Your task to perform on an android device: check out phone information Image 0: 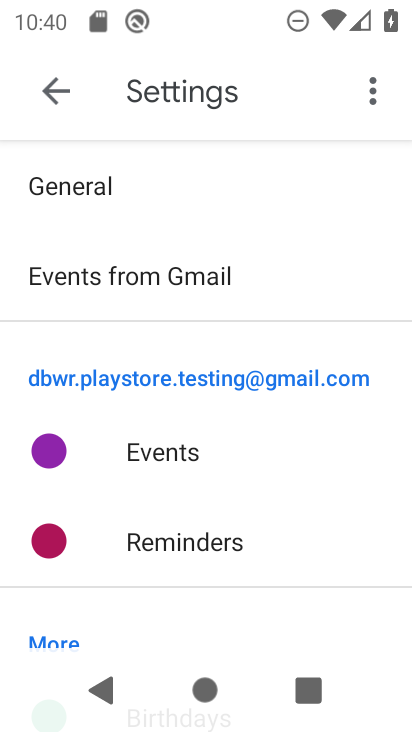
Step 0: drag from (203, 496) to (75, 343)
Your task to perform on an android device: check out phone information Image 1: 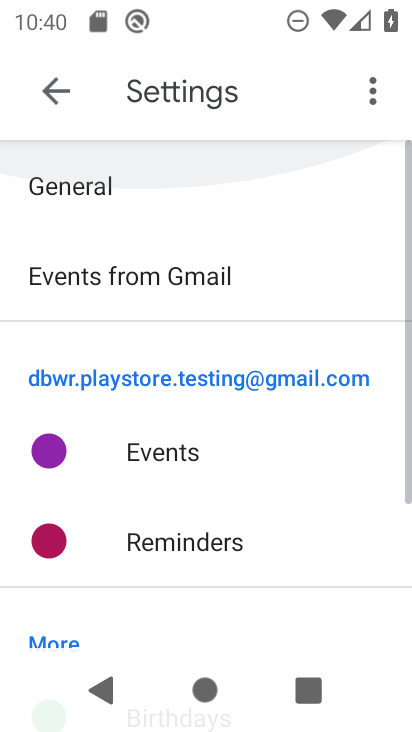
Step 1: drag from (246, 537) to (320, 86)
Your task to perform on an android device: check out phone information Image 2: 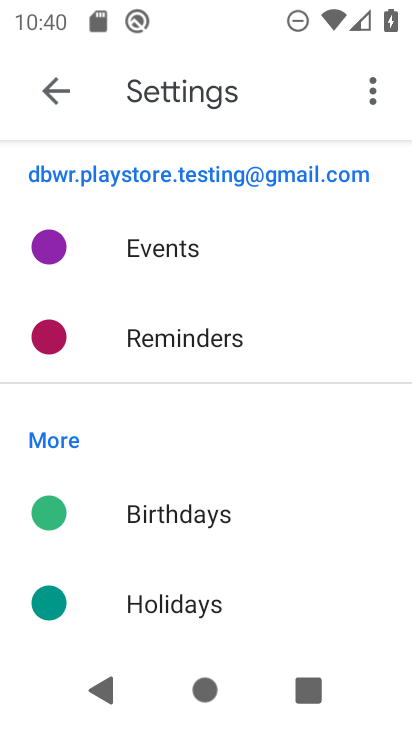
Step 2: press home button
Your task to perform on an android device: check out phone information Image 3: 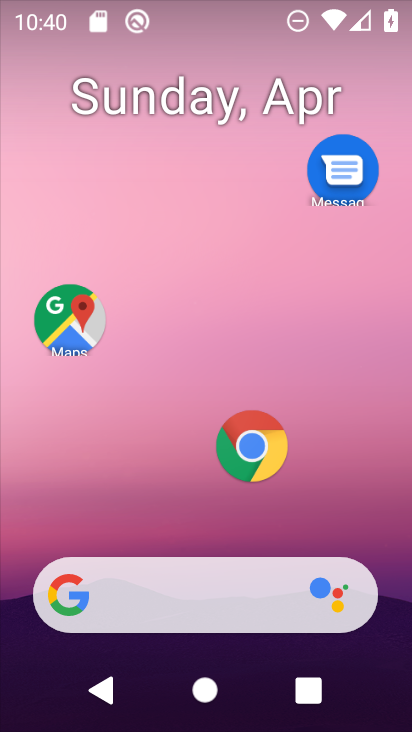
Step 3: drag from (205, 463) to (228, 119)
Your task to perform on an android device: check out phone information Image 4: 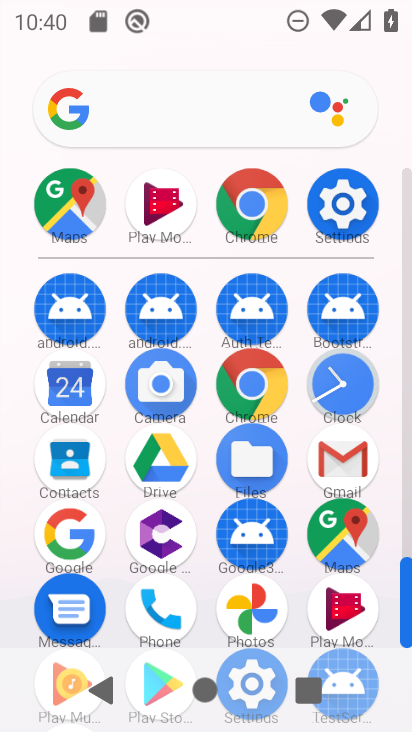
Step 4: click (351, 204)
Your task to perform on an android device: check out phone information Image 5: 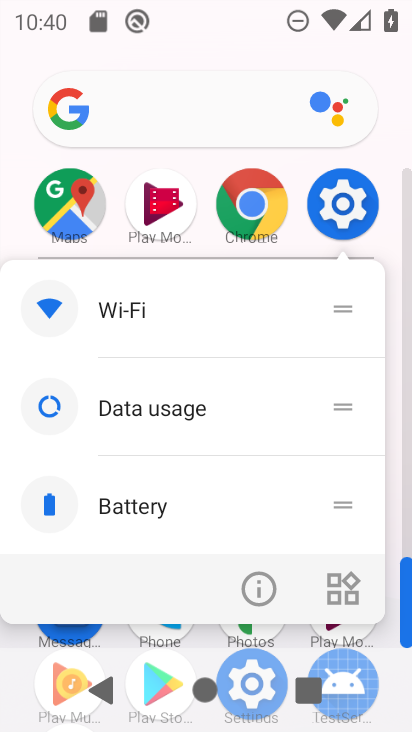
Step 5: click (254, 589)
Your task to perform on an android device: check out phone information Image 6: 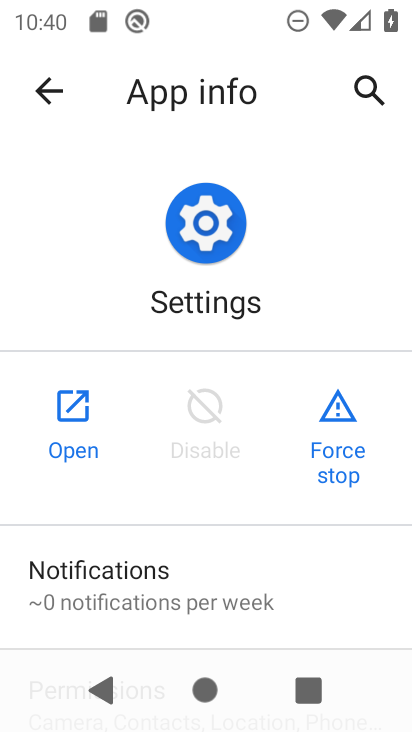
Step 6: click (54, 423)
Your task to perform on an android device: check out phone information Image 7: 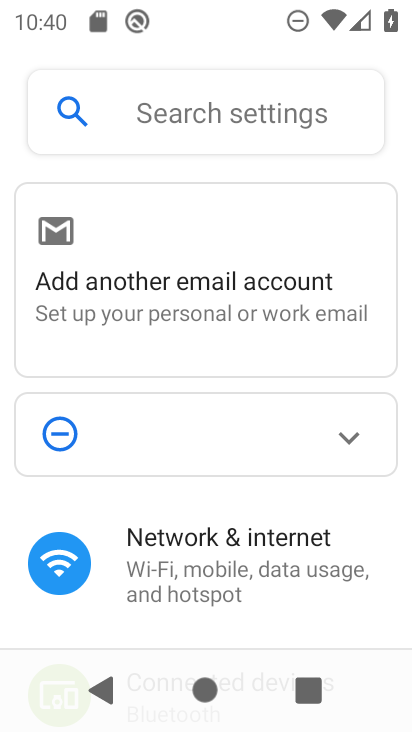
Step 7: drag from (215, 410) to (273, 133)
Your task to perform on an android device: check out phone information Image 8: 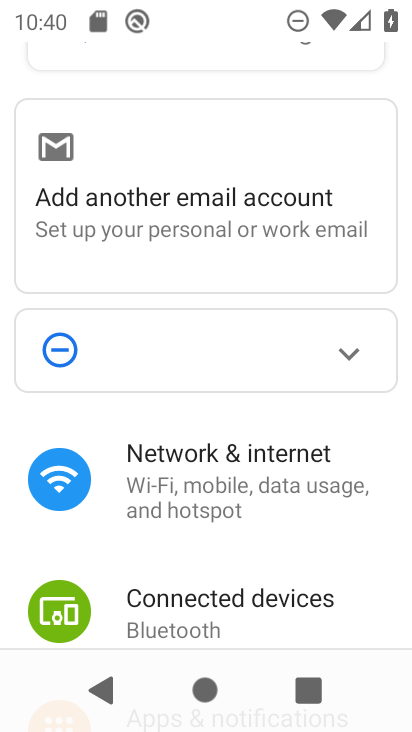
Step 8: drag from (193, 608) to (259, 89)
Your task to perform on an android device: check out phone information Image 9: 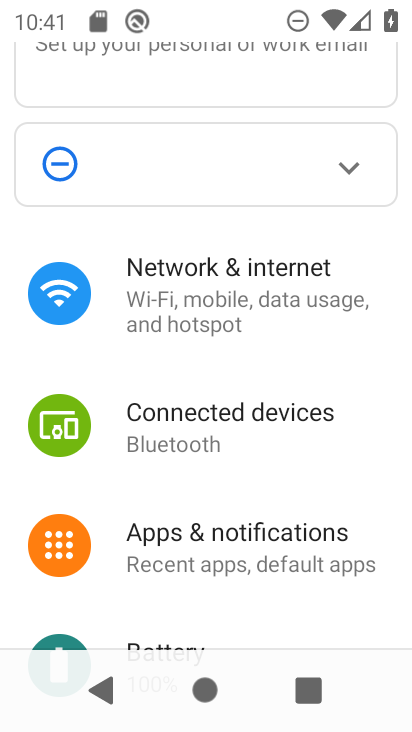
Step 9: drag from (178, 578) to (203, 170)
Your task to perform on an android device: check out phone information Image 10: 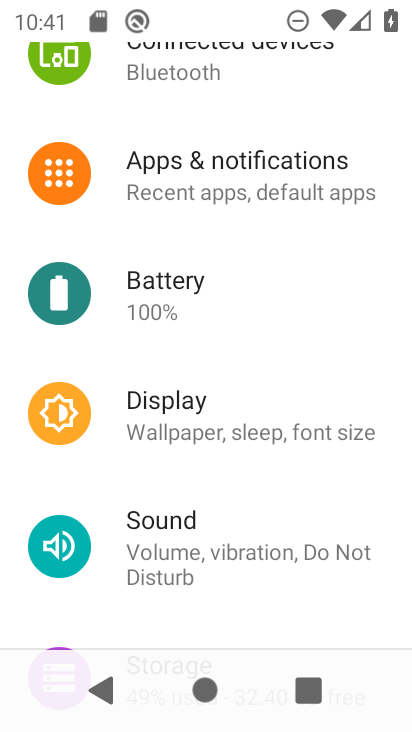
Step 10: drag from (153, 507) to (146, 55)
Your task to perform on an android device: check out phone information Image 11: 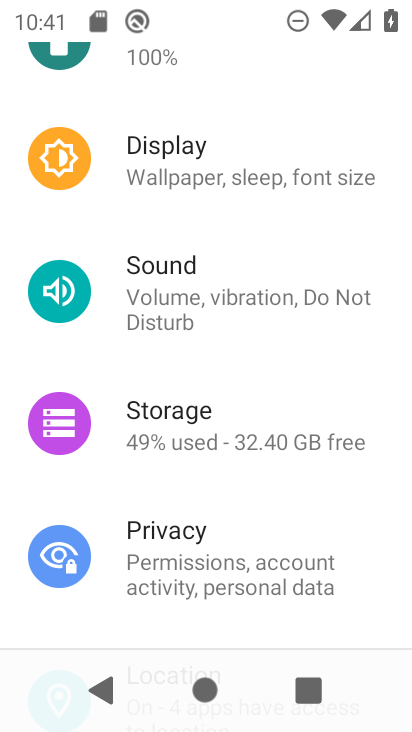
Step 11: drag from (195, 551) to (277, 122)
Your task to perform on an android device: check out phone information Image 12: 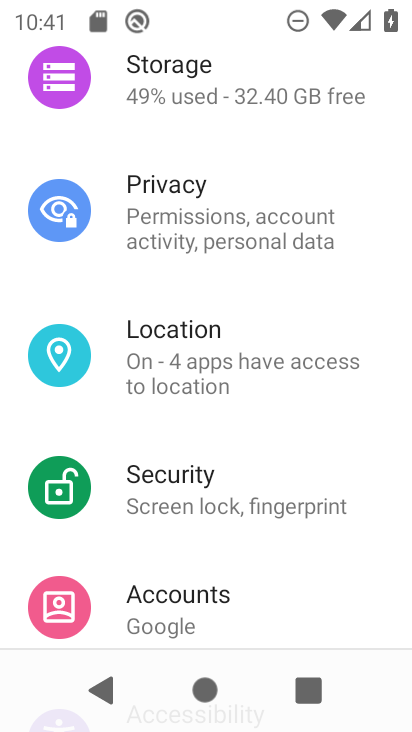
Step 12: drag from (226, 280) to (263, 105)
Your task to perform on an android device: check out phone information Image 13: 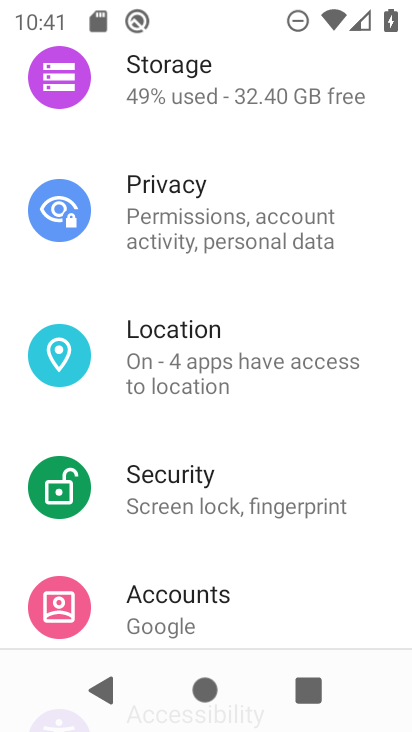
Step 13: drag from (189, 611) to (241, 49)
Your task to perform on an android device: check out phone information Image 14: 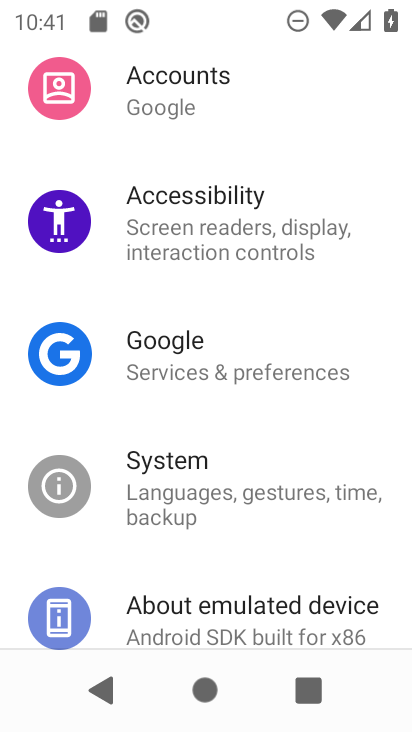
Step 14: drag from (199, 601) to (243, 117)
Your task to perform on an android device: check out phone information Image 15: 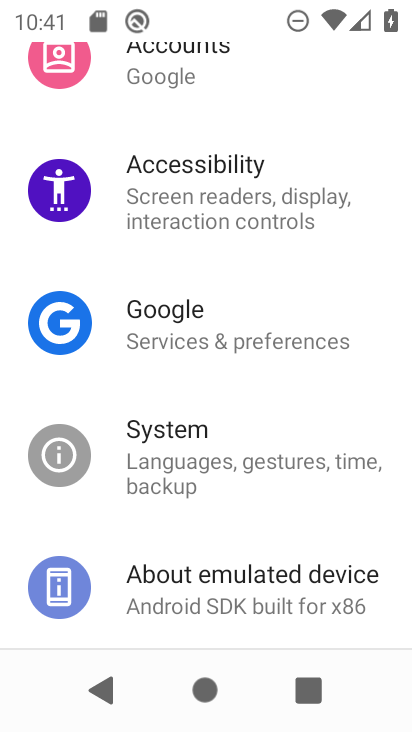
Step 15: click (178, 586)
Your task to perform on an android device: check out phone information Image 16: 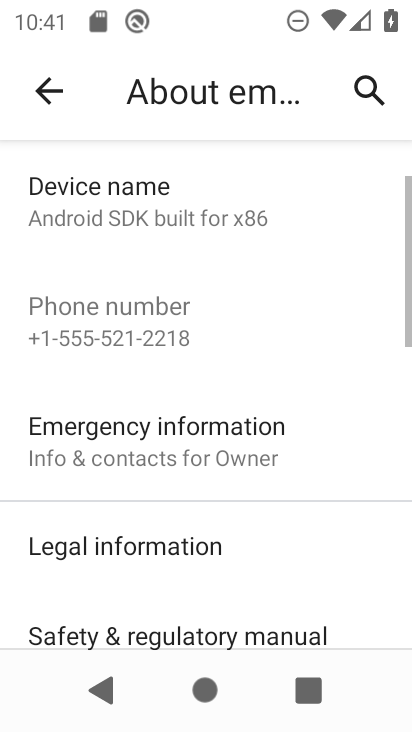
Step 16: task complete